Your task to perform on an android device: Find coffee shops on Maps Image 0: 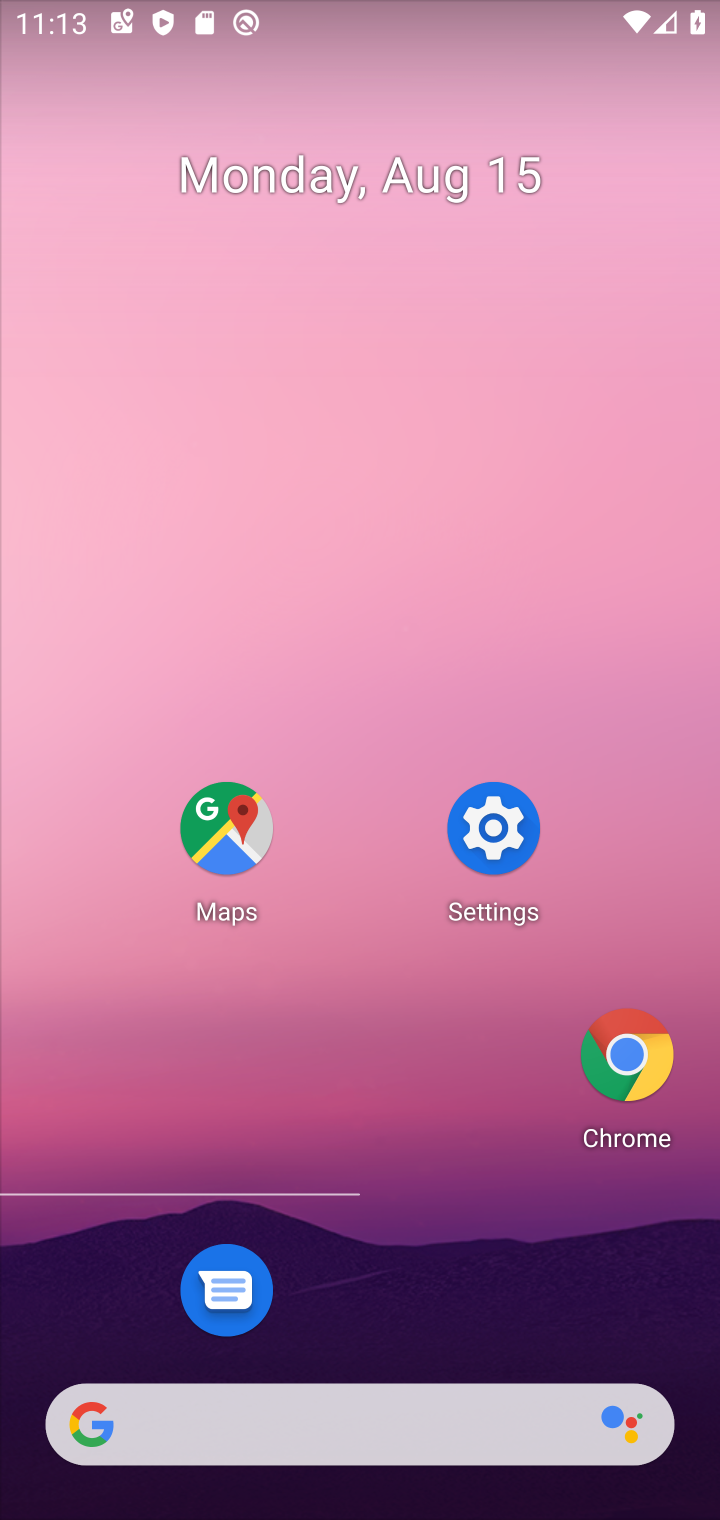
Step 0: click (222, 851)
Your task to perform on an android device: Find coffee shops on Maps Image 1: 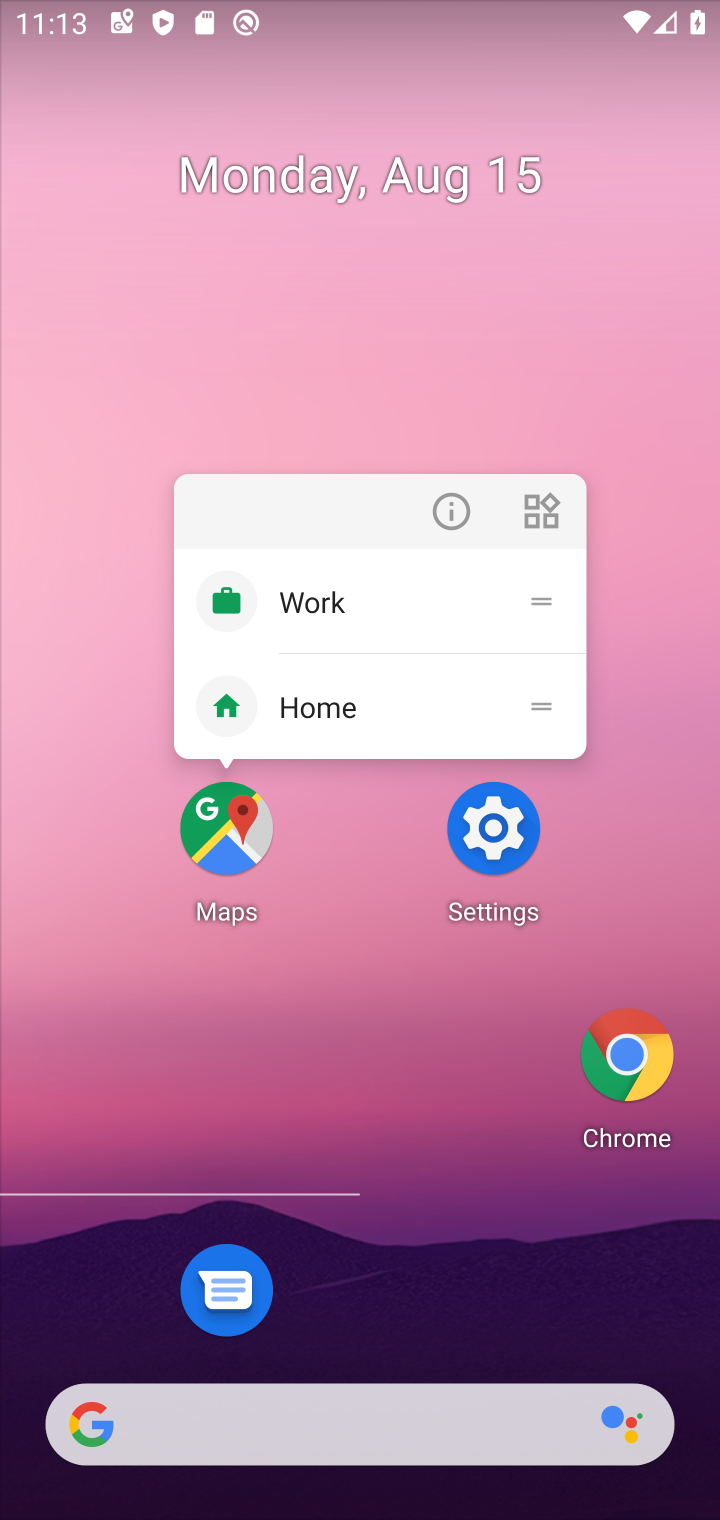
Step 1: click (225, 832)
Your task to perform on an android device: Find coffee shops on Maps Image 2: 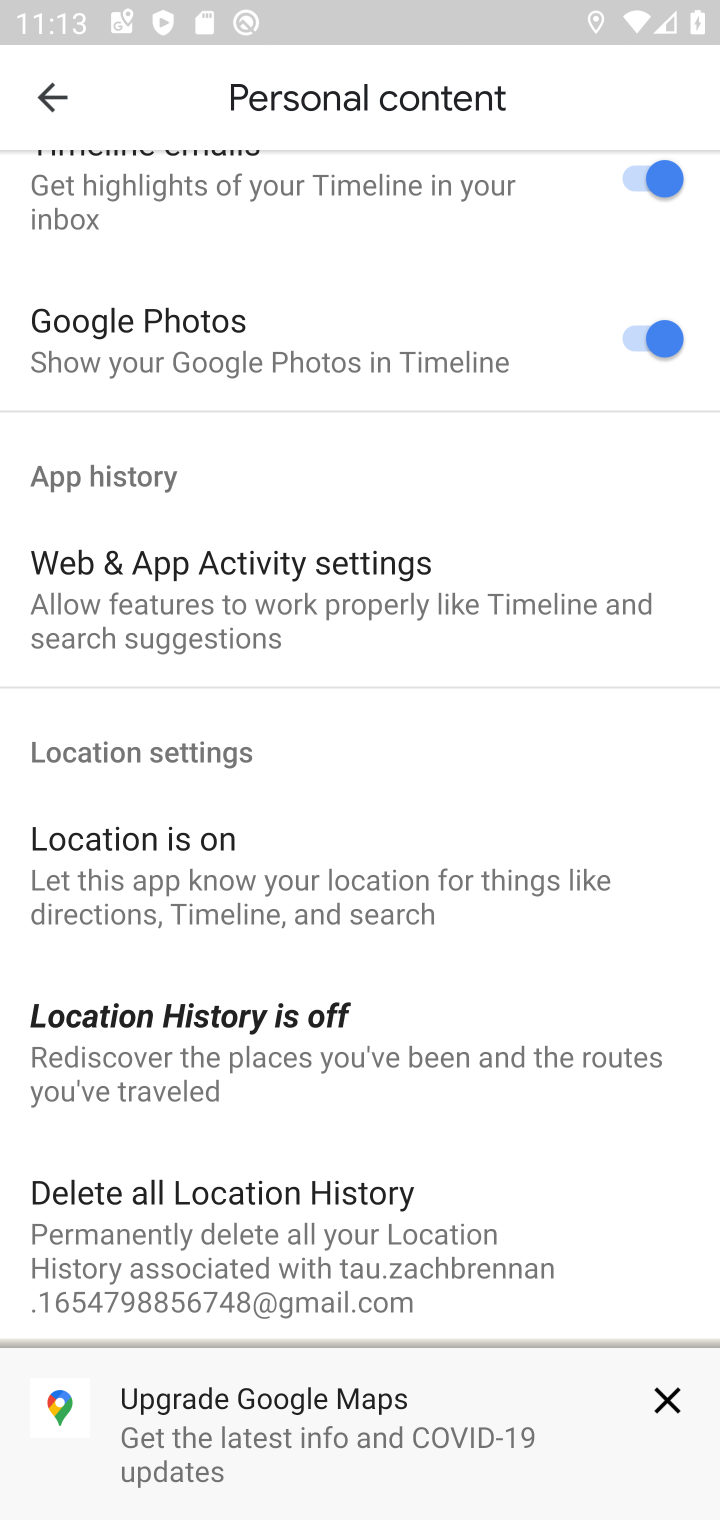
Step 2: press back button
Your task to perform on an android device: Find coffee shops on Maps Image 3: 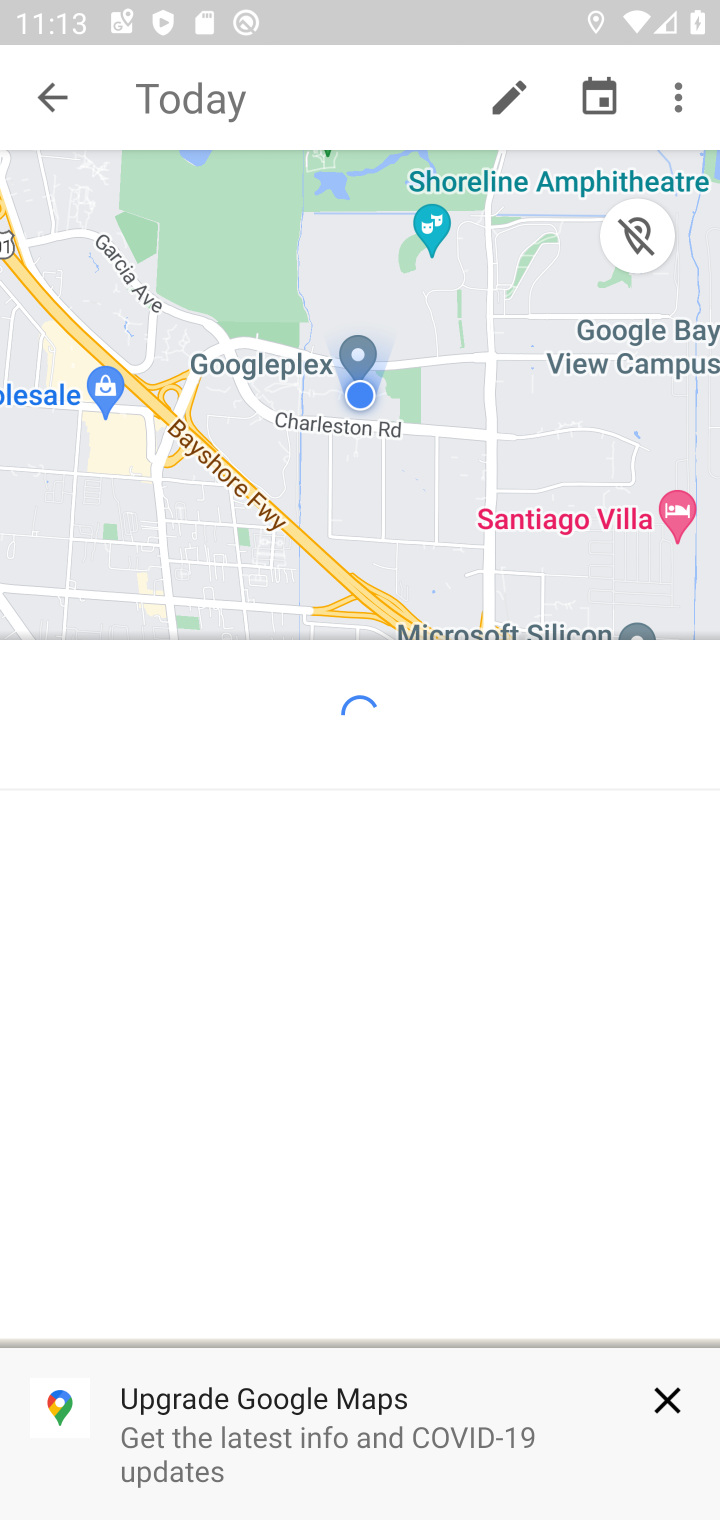
Step 3: press back button
Your task to perform on an android device: Find coffee shops on Maps Image 4: 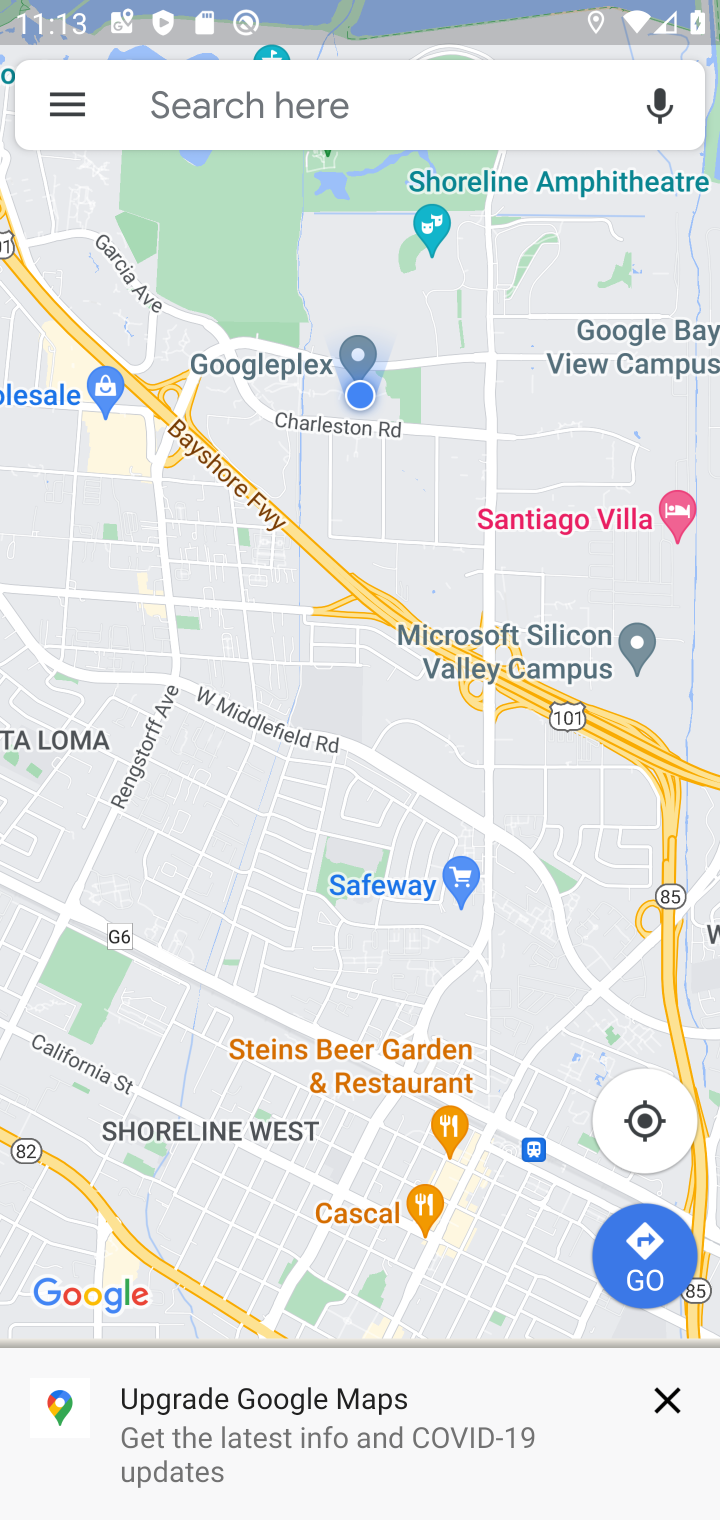
Step 4: click (322, 118)
Your task to perform on an android device: Find coffee shops on Maps Image 5: 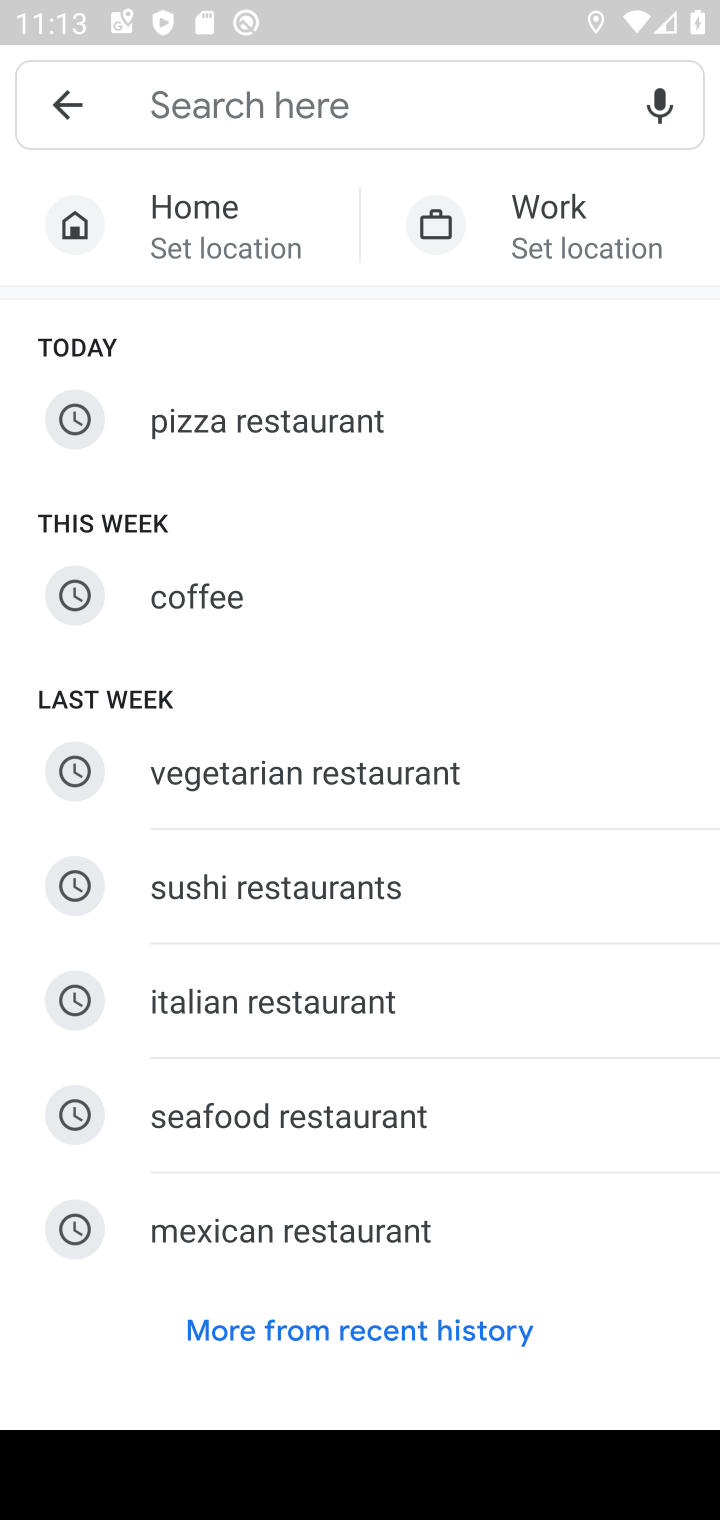
Step 5: click (174, 585)
Your task to perform on an android device: Find coffee shops on Maps Image 6: 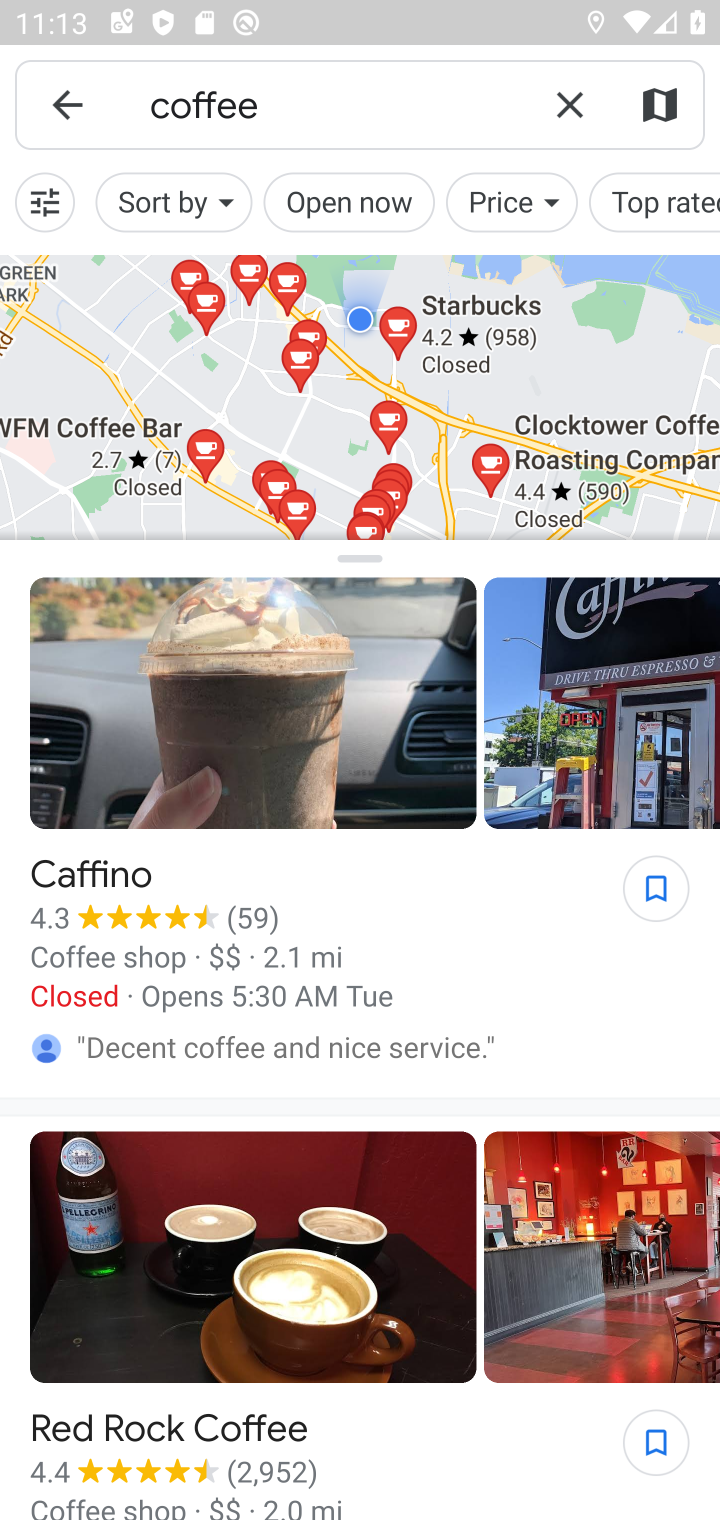
Step 6: task complete